Your task to perform on an android device: Open Yahoo.com Image 0: 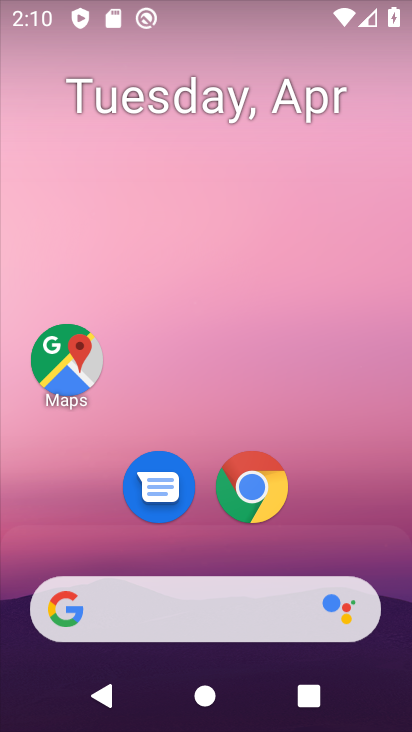
Step 0: click (270, 497)
Your task to perform on an android device: Open Yahoo.com Image 1: 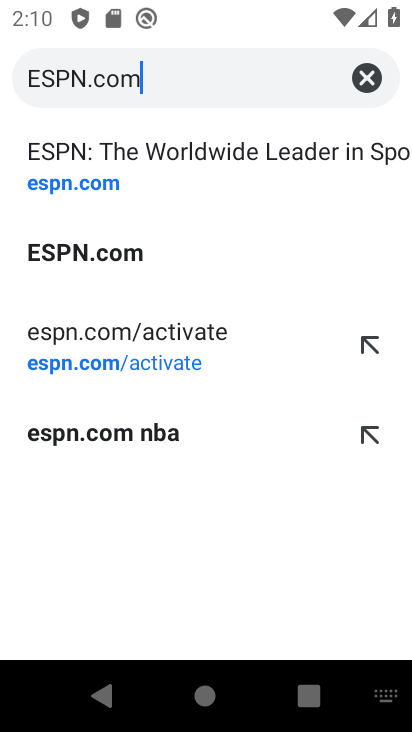
Step 1: click (377, 72)
Your task to perform on an android device: Open Yahoo.com Image 2: 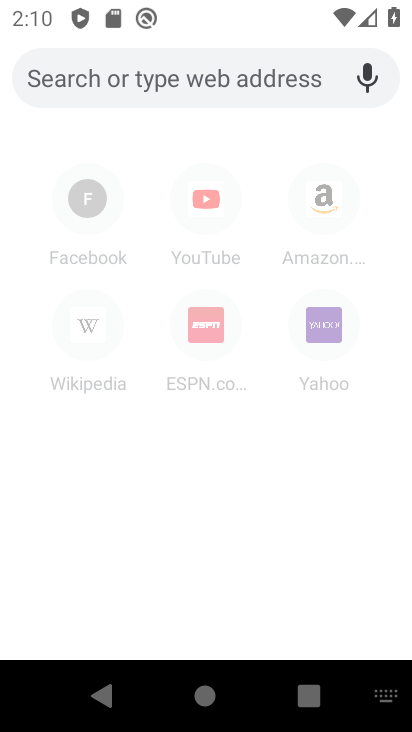
Step 2: type "yahoo.com"
Your task to perform on an android device: Open Yahoo.com Image 3: 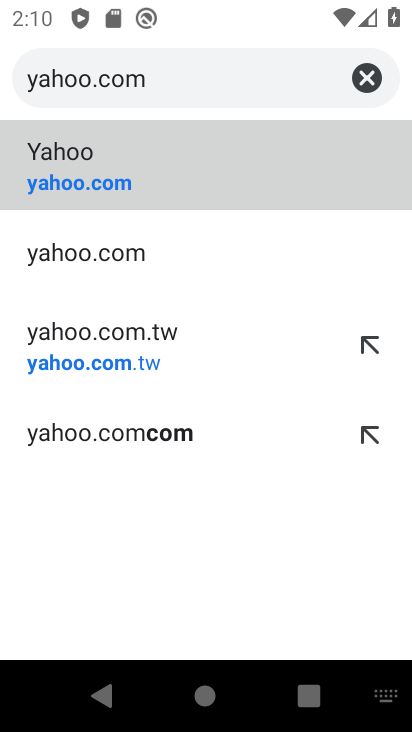
Step 3: click (90, 177)
Your task to perform on an android device: Open Yahoo.com Image 4: 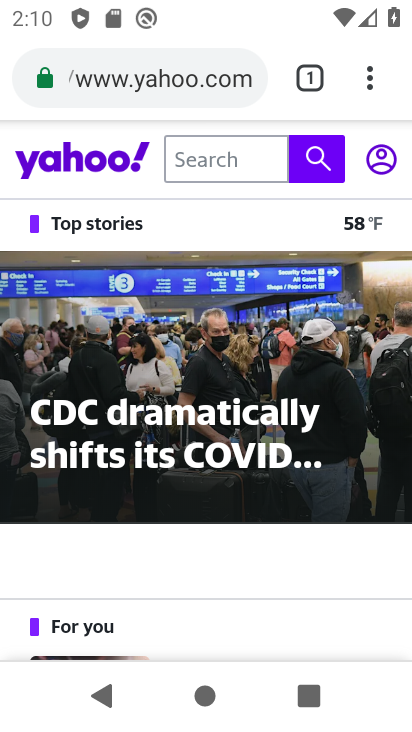
Step 4: task complete